Your task to perform on an android device: remove spam from my inbox in the gmail app Image 0: 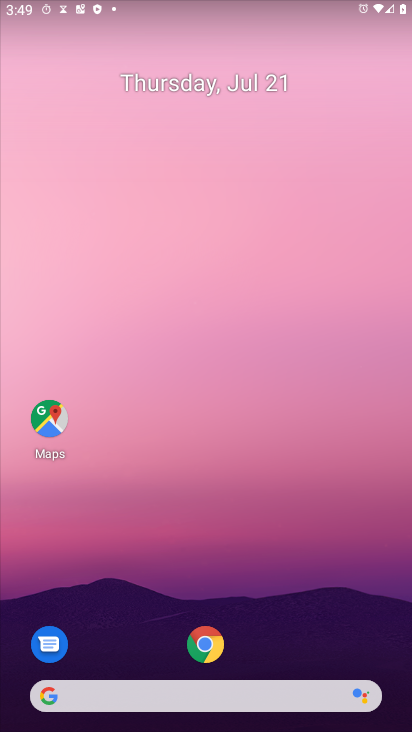
Step 0: press home button
Your task to perform on an android device: remove spam from my inbox in the gmail app Image 1: 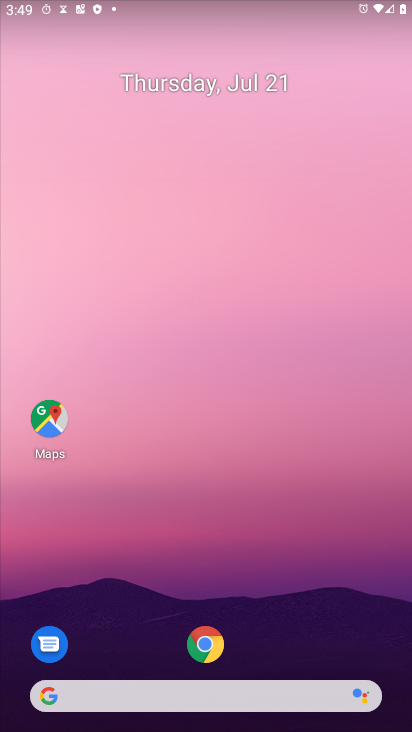
Step 1: press home button
Your task to perform on an android device: remove spam from my inbox in the gmail app Image 2: 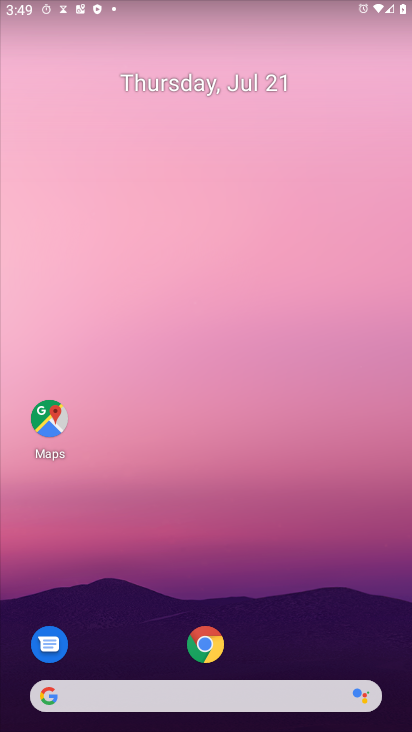
Step 2: drag from (315, 606) to (280, 17)
Your task to perform on an android device: remove spam from my inbox in the gmail app Image 3: 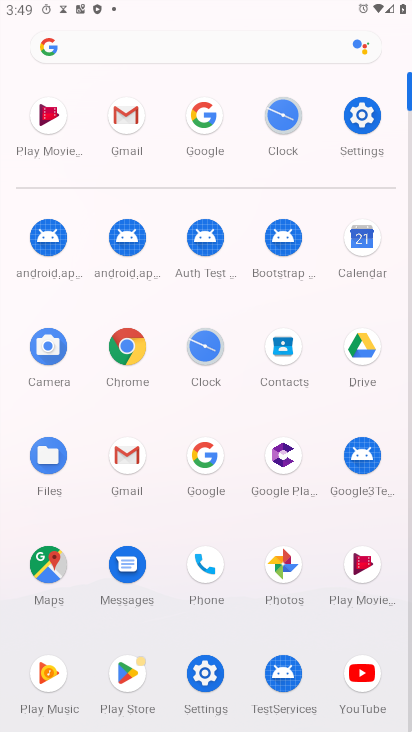
Step 3: click (125, 114)
Your task to perform on an android device: remove spam from my inbox in the gmail app Image 4: 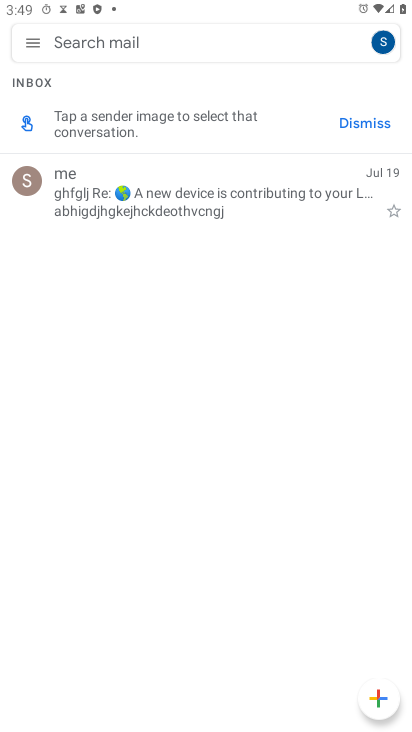
Step 4: drag from (279, 731) to (124, 7)
Your task to perform on an android device: remove spam from my inbox in the gmail app Image 5: 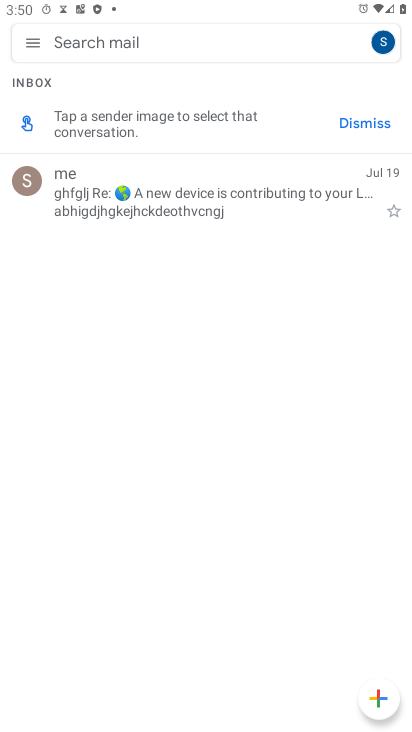
Step 5: click (197, 203)
Your task to perform on an android device: remove spam from my inbox in the gmail app Image 6: 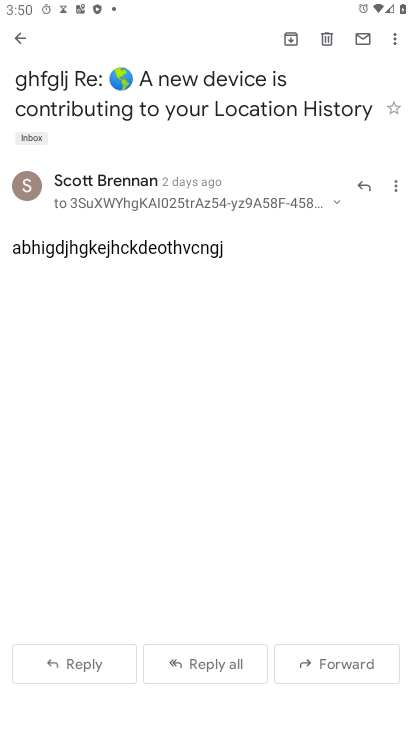
Step 6: click (391, 33)
Your task to perform on an android device: remove spam from my inbox in the gmail app Image 7: 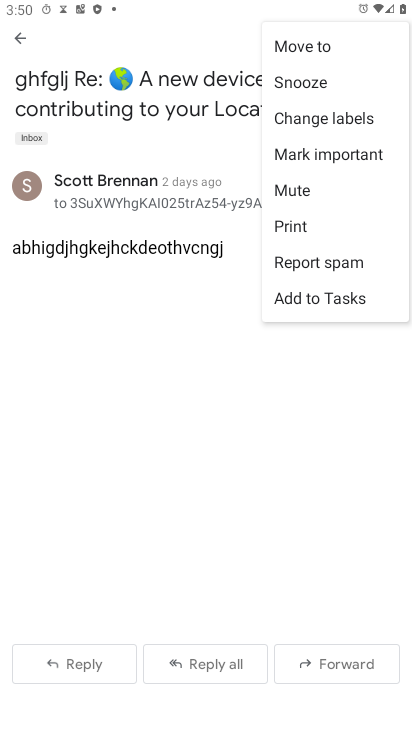
Step 7: click (297, 257)
Your task to perform on an android device: remove spam from my inbox in the gmail app Image 8: 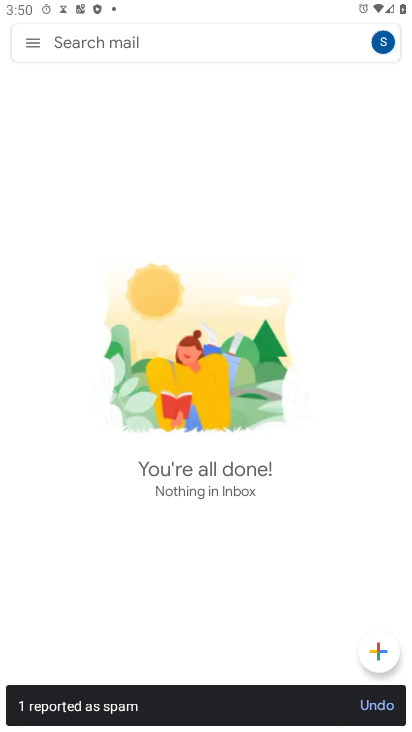
Step 8: task complete